Your task to perform on an android device: empty trash in google photos Image 0: 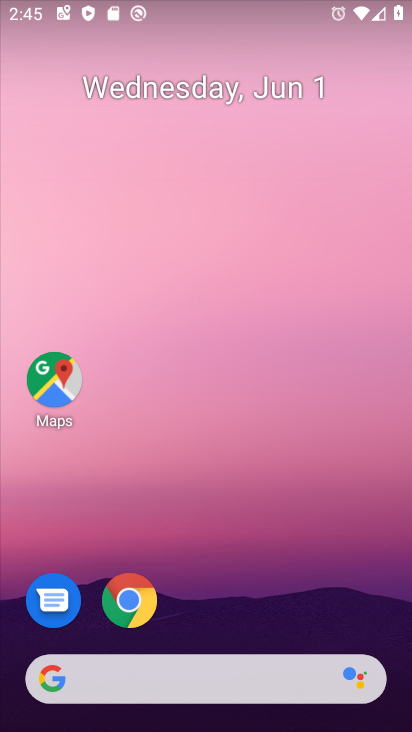
Step 0: drag from (260, 490) to (220, 98)
Your task to perform on an android device: empty trash in google photos Image 1: 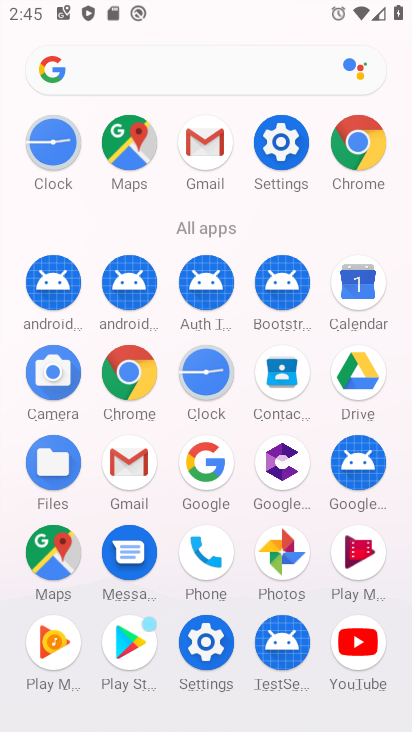
Step 1: drag from (12, 548) to (23, 316)
Your task to perform on an android device: empty trash in google photos Image 2: 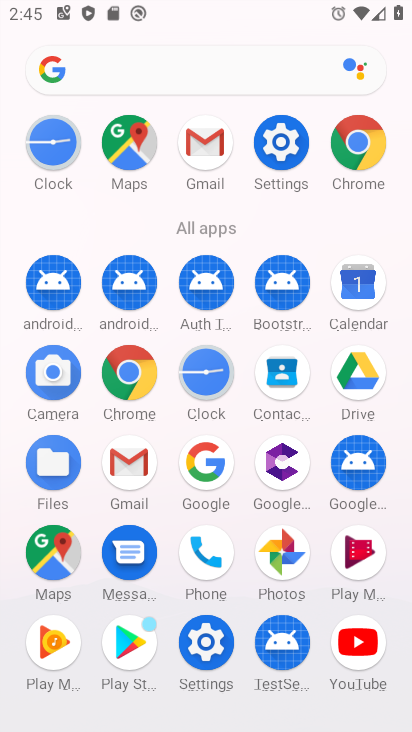
Step 2: click (281, 539)
Your task to perform on an android device: empty trash in google photos Image 3: 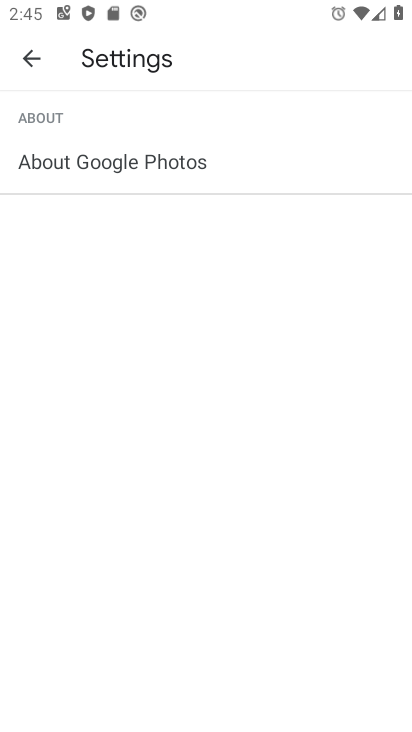
Step 3: click (34, 63)
Your task to perform on an android device: empty trash in google photos Image 4: 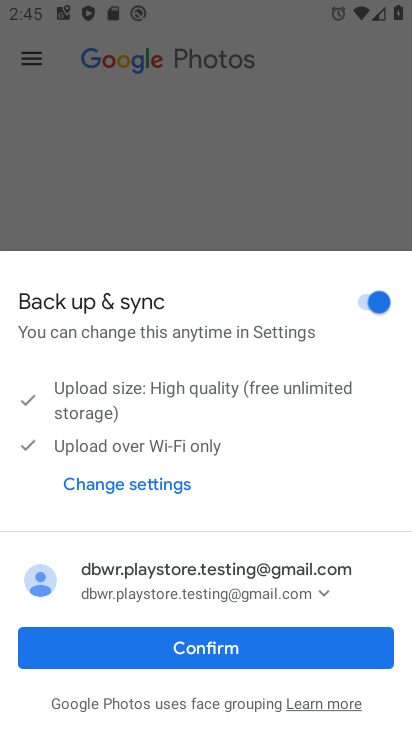
Step 4: click (188, 641)
Your task to perform on an android device: empty trash in google photos Image 5: 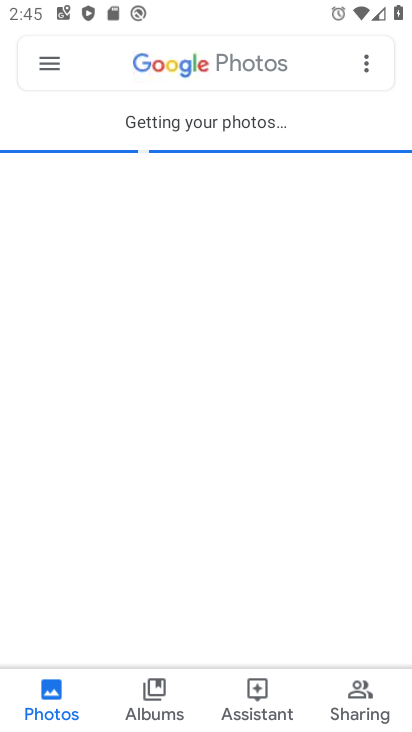
Step 5: click (34, 61)
Your task to perform on an android device: empty trash in google photos Image 6: 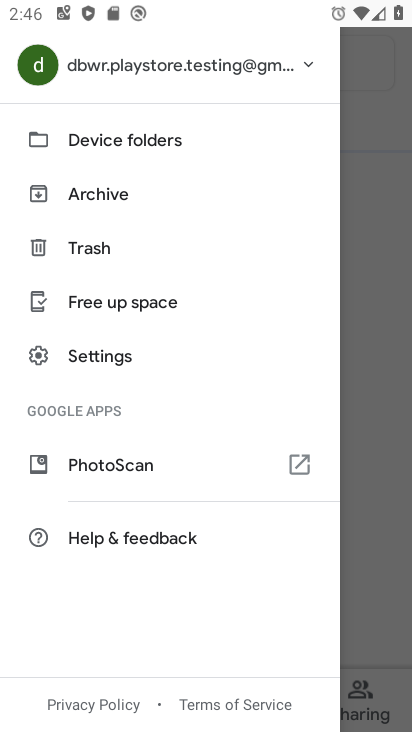
Step 6: click (96, 241)
Your task to perform on an android device: empty trash in google photos Image 7: 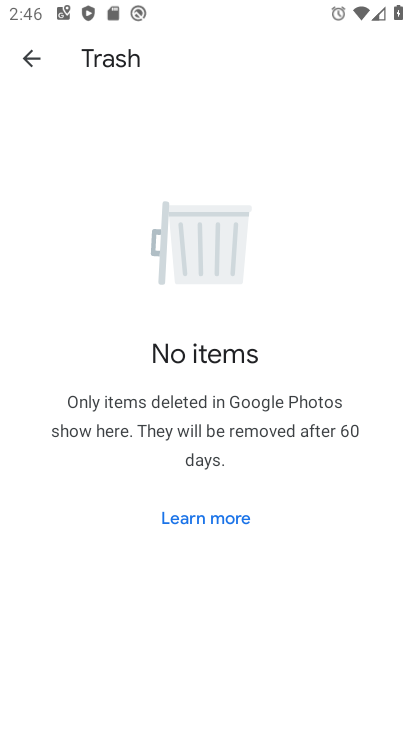
Step 7: task complete